Your task to perform on an android device: check storage Image 0: 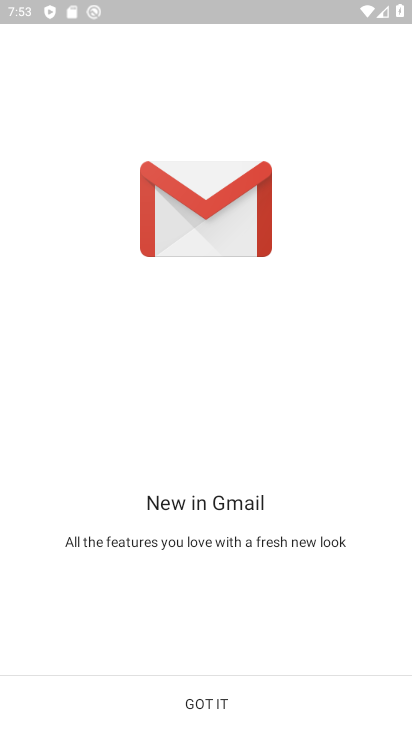
Step 0: press home button
Your task to perform on an android device: check storage Image 1: 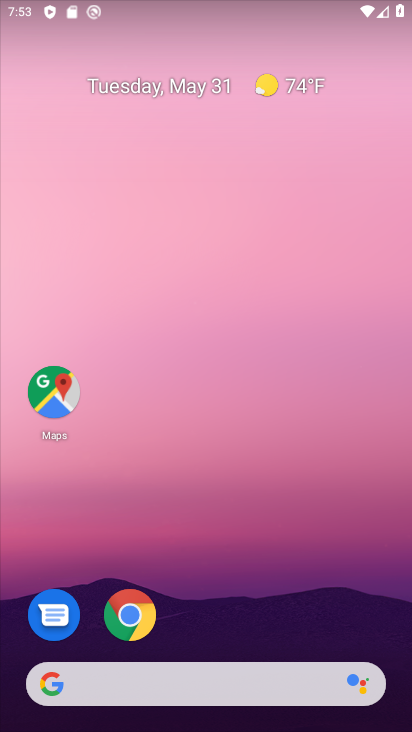
Step 1: drag from (223, 585) to (230, 226)
Your task to perform on an android device: check storage Image 2: 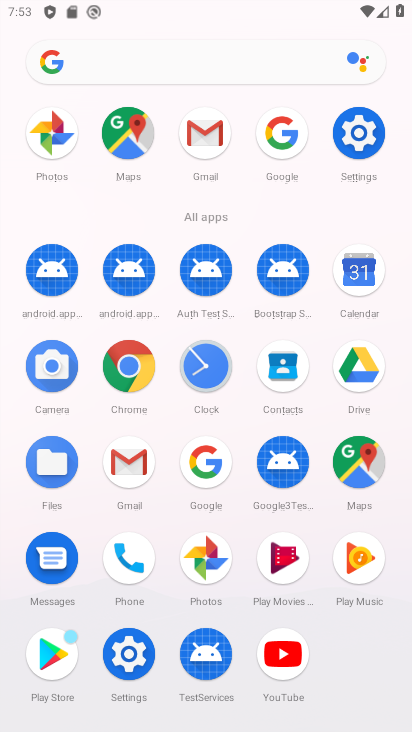
Step 2: click (345, 157)
Your task to perform on an android device: check storage Image 3: 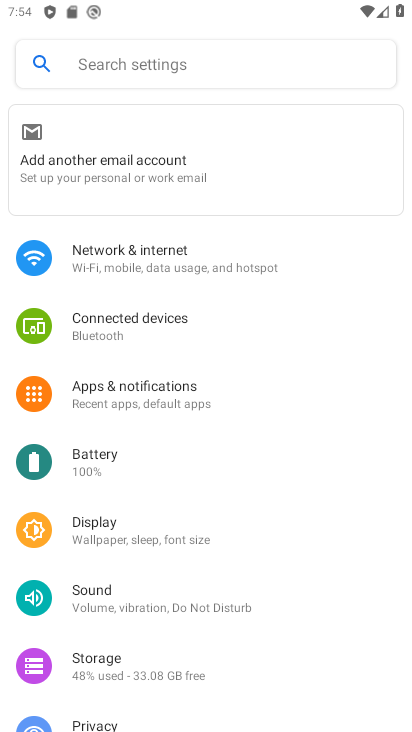
Step 3: drag from (155, 556) to (200, 298)
Your task to perform on an android device: check storage Image 4: 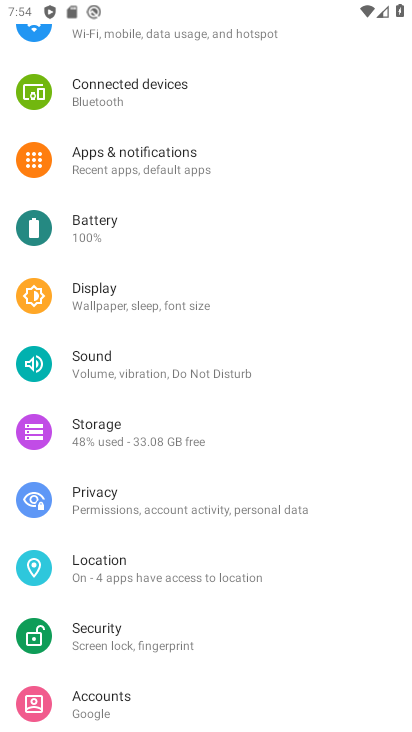
Step 4: click (148, 452)
Your task to perform on an android device: check storage Image 5: 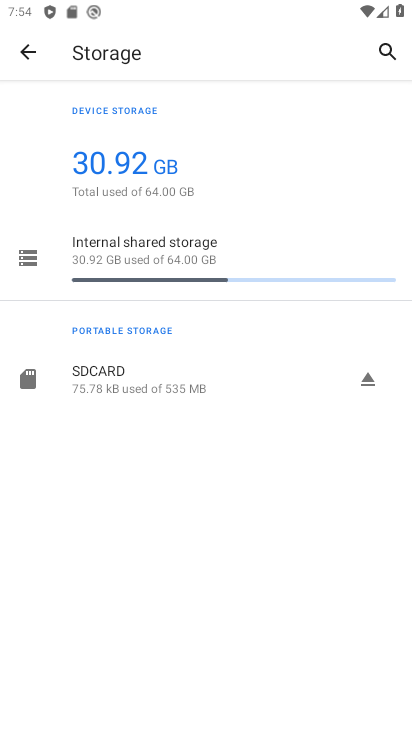
Step 5: task complete